Your task to perform on an android device: Open Youtube and go to the subscriptions tab Image 0: 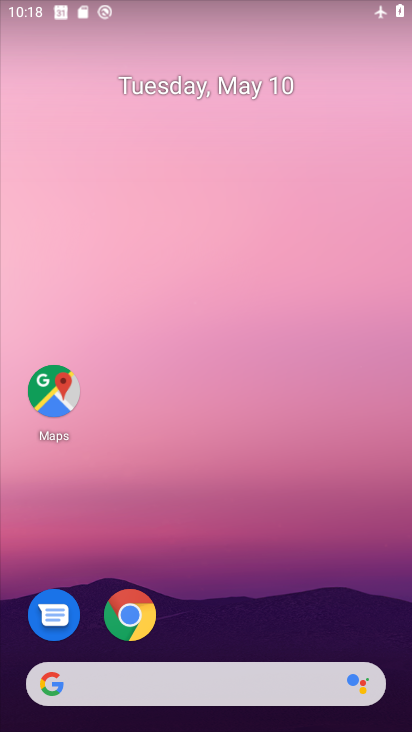
Step 0: drag from (183, 638) to (245, 172)
Your task to perform on an android device: Open Youtube and go to the subscriptions tab Image 1: 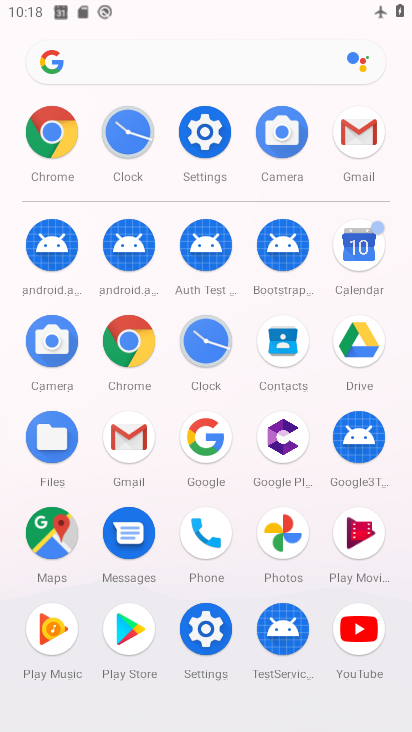
Step 1: click (363, 620)
Your task to perform on an android device: Open Youtube and go to the subscriptions tab Image 2: 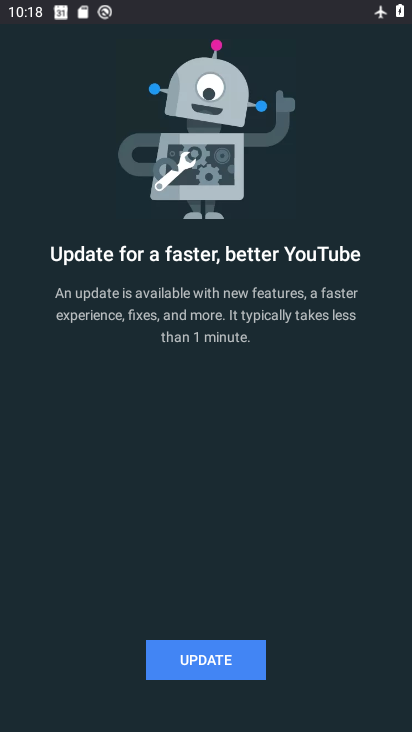
Step 2: press home button
Your task to perform on an android device: Open Youtube and go to the subscriptions tab Image 3: 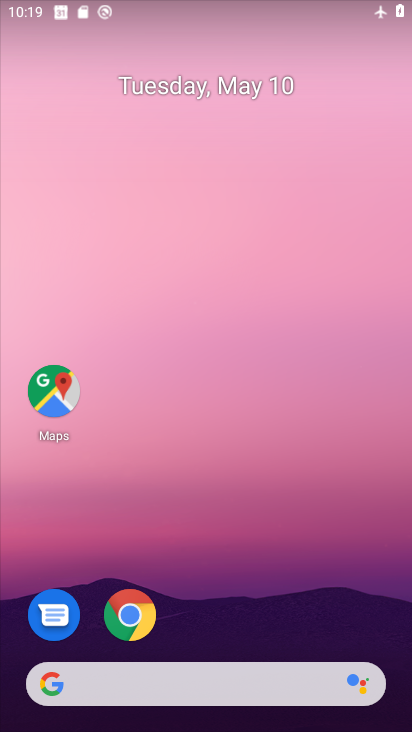
Step 3: drag from (196, 615) to (226, 83)
Your task to perform on an android device: Open Youtube and go to the subscriptions tab Image 4: 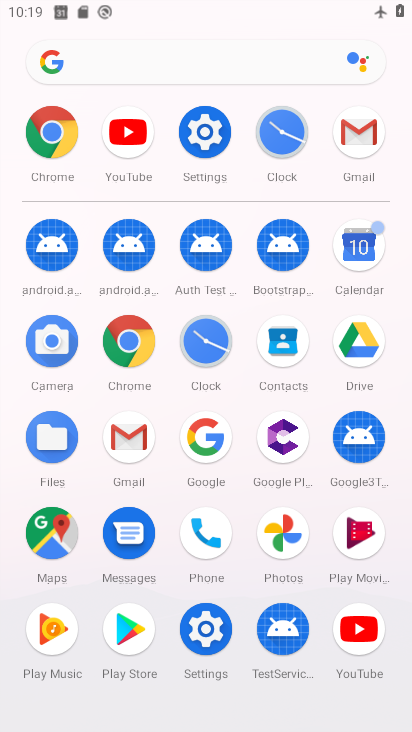
Step 4: click (358, 638)
Your task to perform on an android device: Open Youtube and go to the subscriptions tab Image 5: 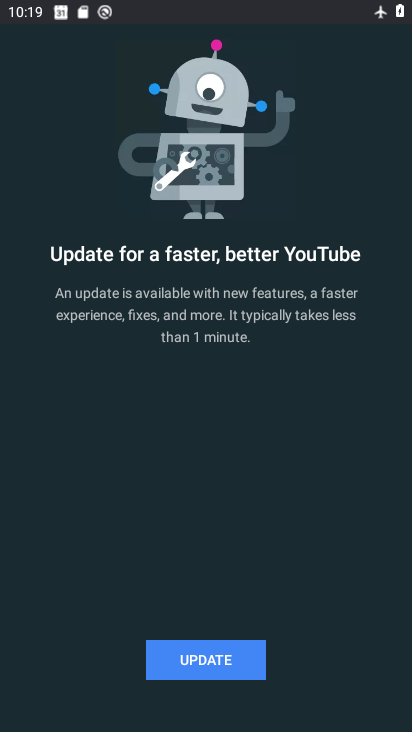
Step 5: press home button
Your task to perform on an android device: Open Youtube and go to the subscriptions tab Image 6: 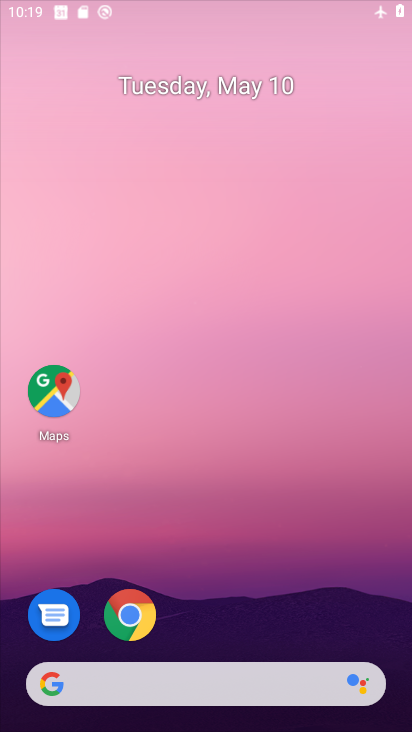
Step 6: drag from (186, 568) to (234, 355)
Your task to perform on an android device: Open Youtube and go to the subscriptions tab Image 7: 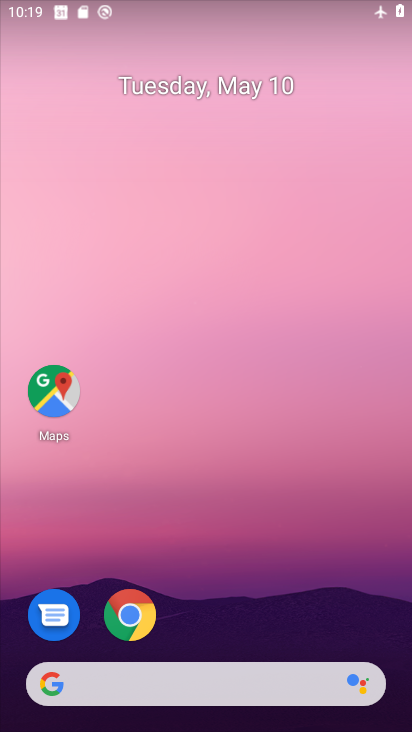
Step 7: drag from (200, 633) to (233, 207)
Your task to perform on an android device: Open Youtube and go to the subscriptions tab Image 8: 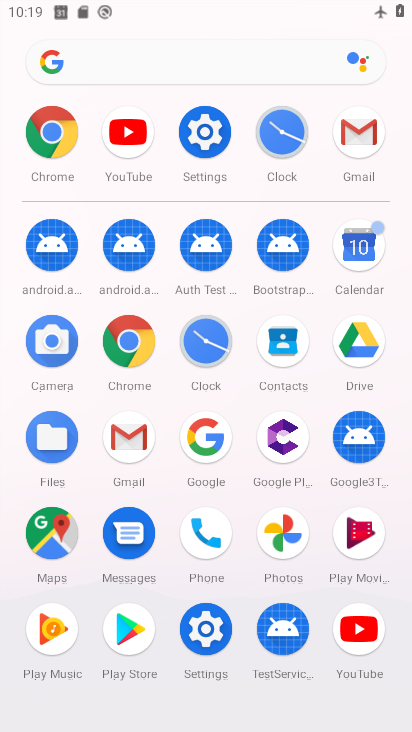
Step 8: click (365, 629)
Your task to perform on an android device: Open Youtube and go to the subscriptions tab Image 9: 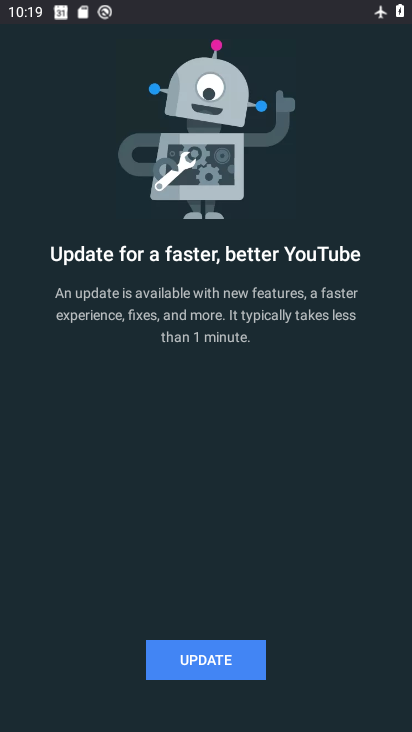
Step 9: task complete